Your task to perform on an android device: Go to privacy settings Image 0: 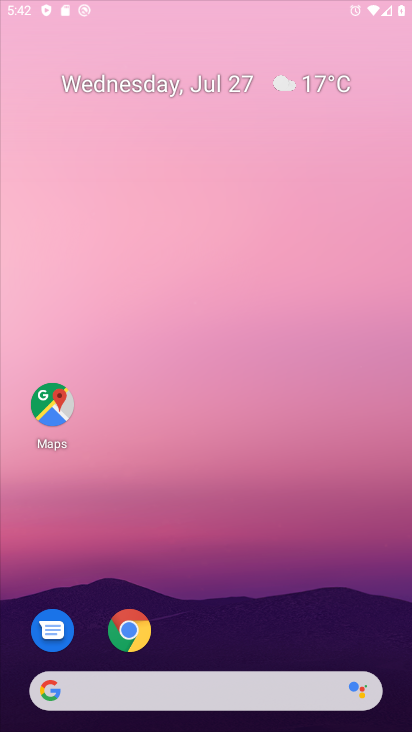
Step 0: click (263, 26)
Your task to perform on an android device: Go to privacy settings Image 1: 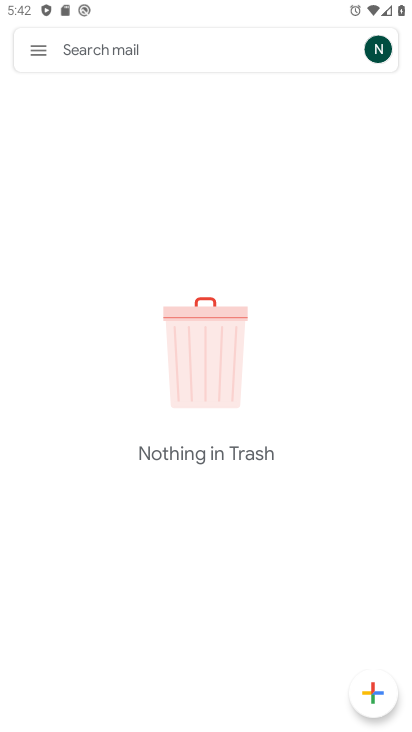
Step 1: press home button
Your task to perform on an android device: Go to privacy settings Image 2: 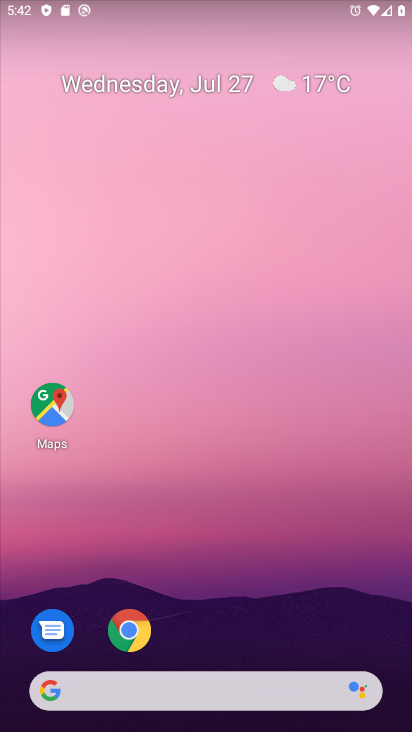
Step 2: drag from (224, 649) to (259, 84)
Your task to perform on an android device: Go to privacy settings Image 3: 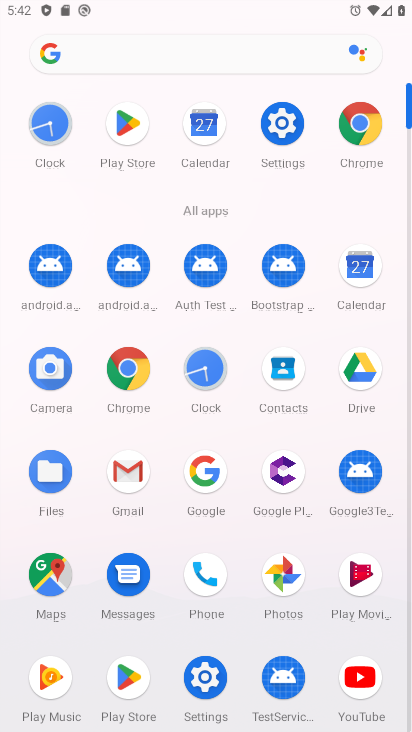
Step 3: click (279, 118)
Your task to perform on an android device: Go to privacy settings Image 4: 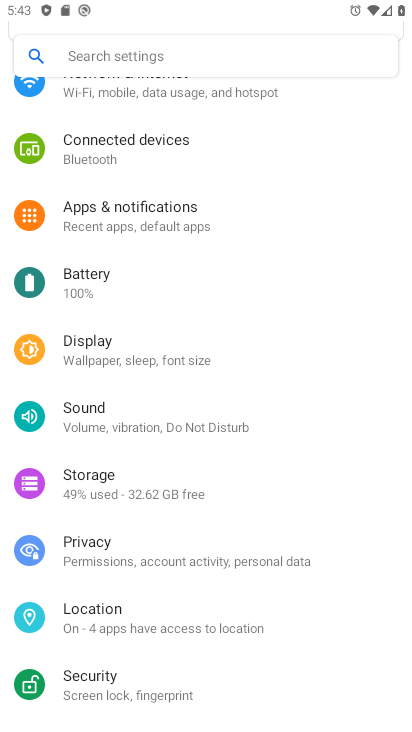
Step 4: click (115, 538)
Your task to perform on an android device: Go to privacy settings Image 5: 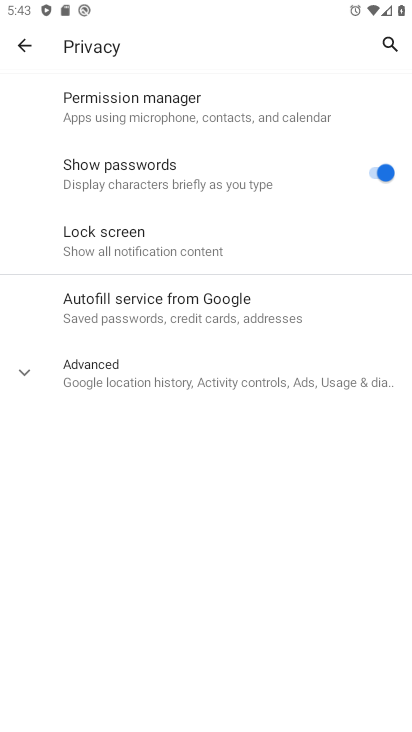
Step 5: click (25, 369)
Your task to perform on an android device: Go to privacy settings Image 6: 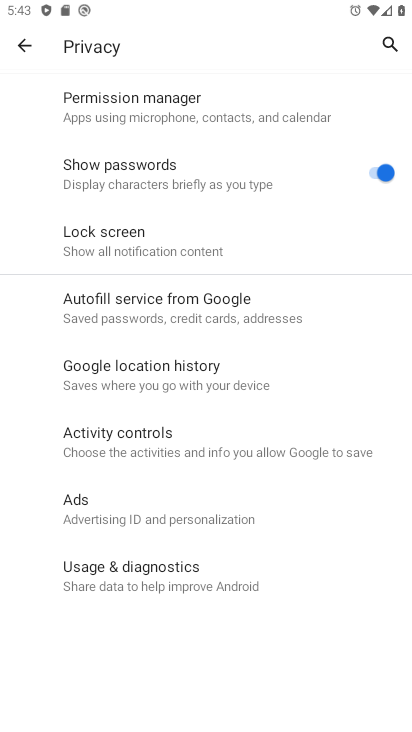
Step 6: task complete